Your task to perform on an android device: change the clock style Image 0: 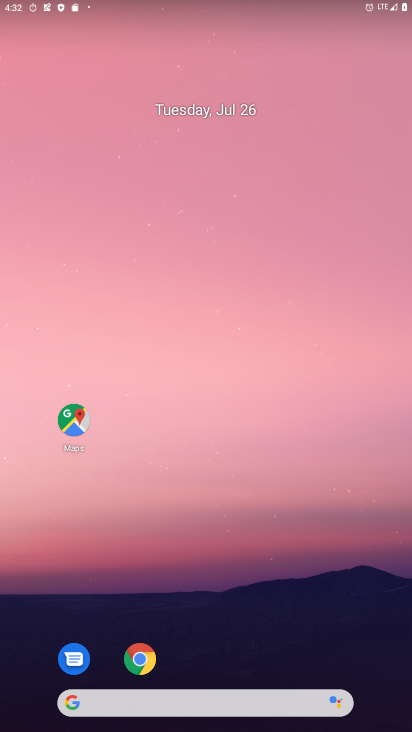
Step 0: press home button
Your task to perform on an android device: change the clock style Image 1: 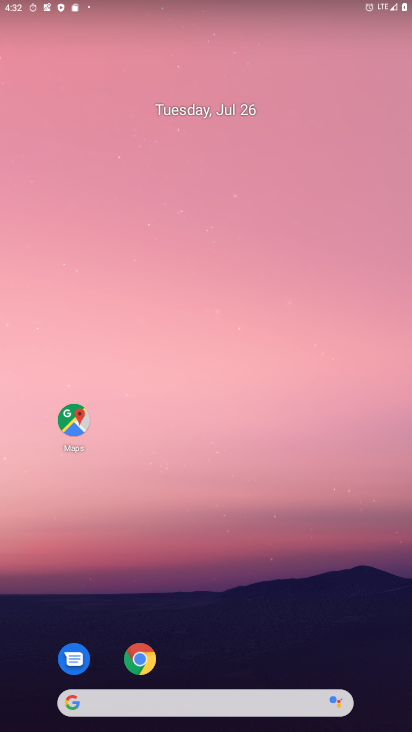
Step 1: drag from (247, 647) to (286, 11)
Your task to perform on an android device: change the clock style Image 2: 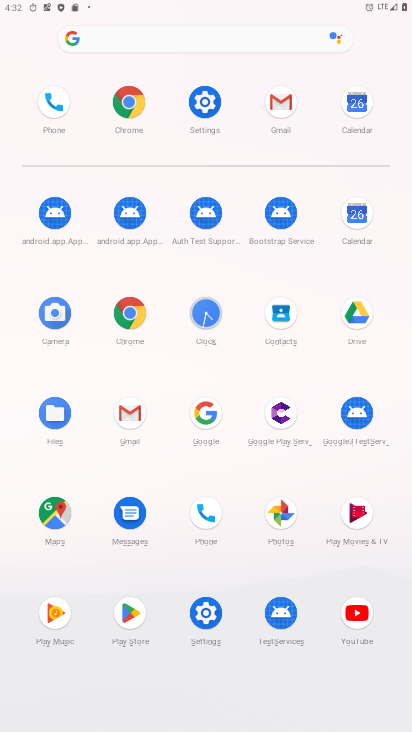
Step 2: click (207, 319)
Your task to perform on an android device: change the clock style Image 3: 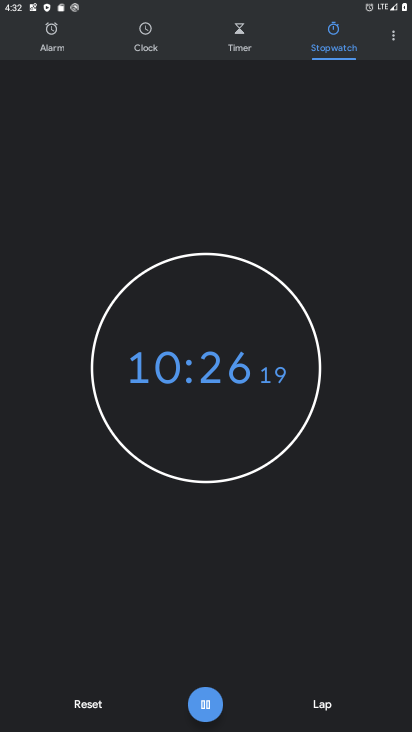
Step 3: click (393, 33)
Your task to perform on an android device: change the clock style Image 4: 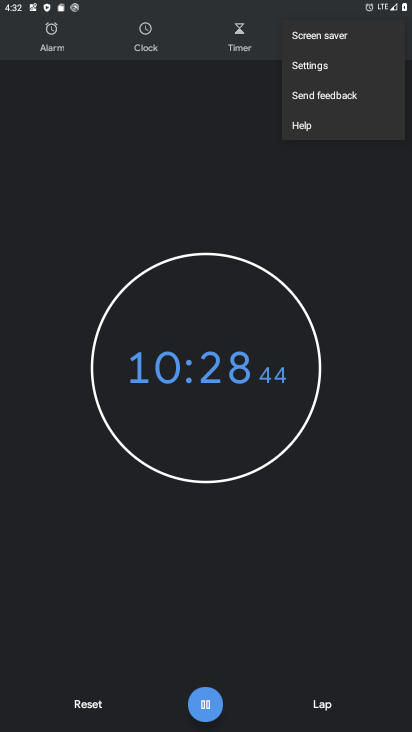
Step 4: click (331, 67)
Your task to perform on an android device: change the clock style Image 5: 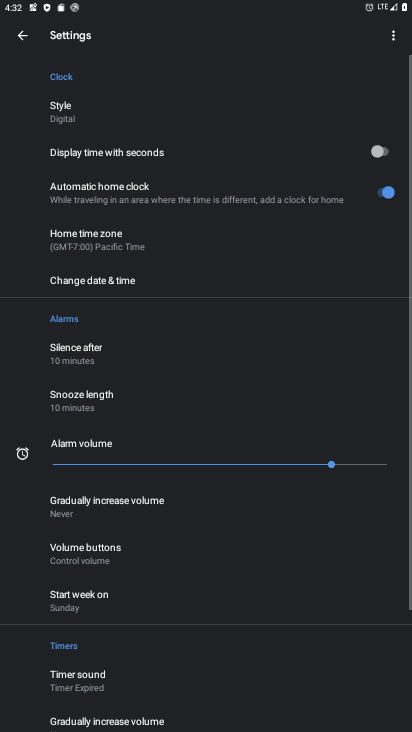
Step 5: click (70, 117)
Your task to perform on an android device: change the clock style Image 6: 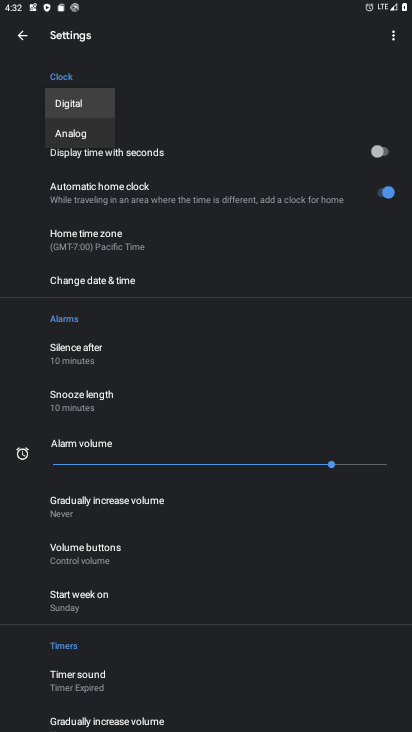
Step 6: click (78, 131)
Your task to perform on an android device: change the clock style Image 7: 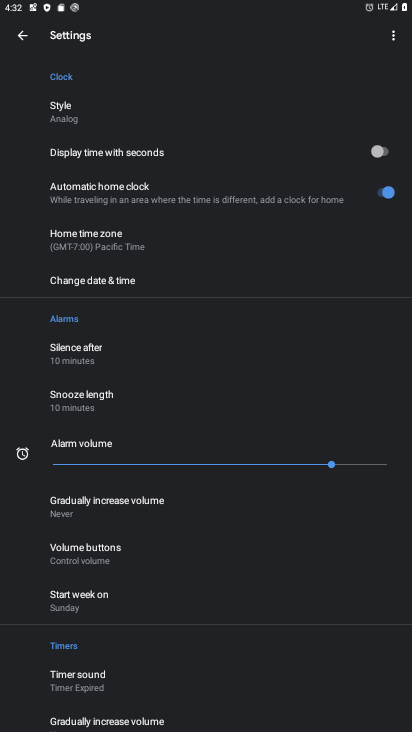
Step 7: task complete